Your task to perform on an android device: Open calendar and show me the fourth week of next month Image 0: 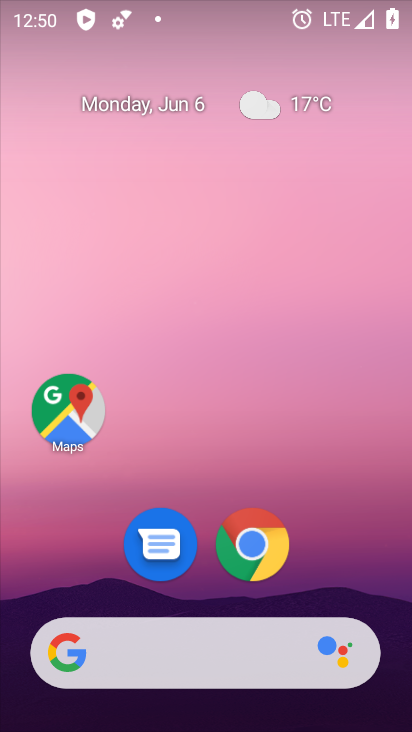
Step 0: drag from (349, 582) to (310, 231)
Your task to perform on an android device: Open calendar and show me the fourth week of next month Image 1: 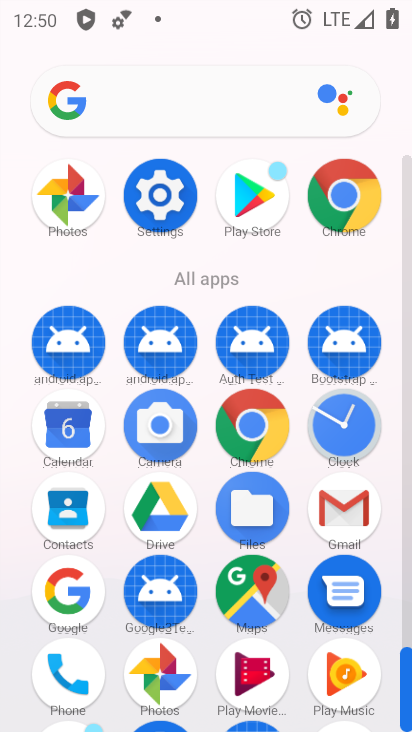
Step 1: click (66, 432)
Your task to perform on an android device: Open calendar and show me the fourth week of next month Image 2: 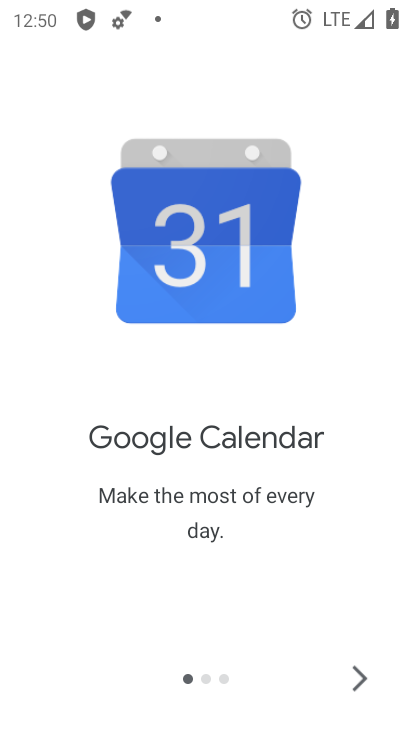
Step 2: click (363, 687)
Your task to perform on an android device: Open calendar and show me the fourth week of next month Image 3: 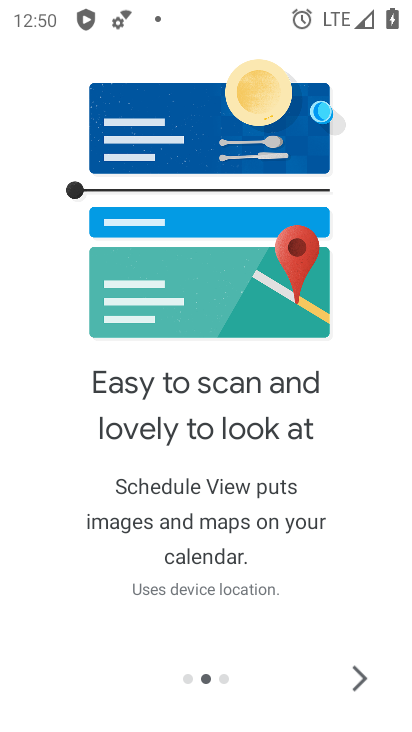
Step 3: click (363, 687)
Your task to perform on an android device: Open calendar and show me the fourth week of next month Image 4: 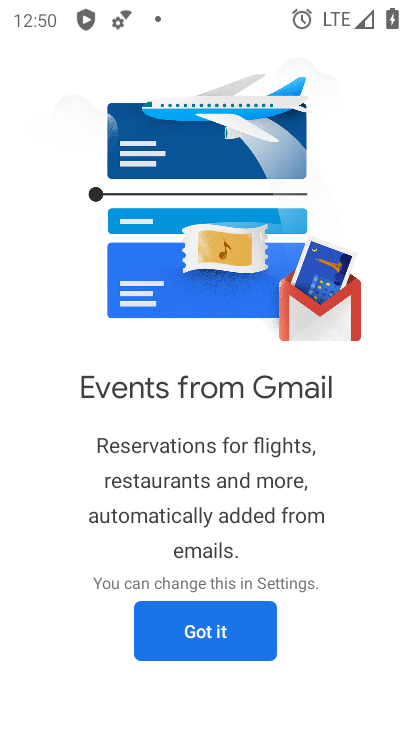
Step 4: click (245, 649)
Your task to perform on an android device: Open calendar and show me the fourth week of next month Image 5: 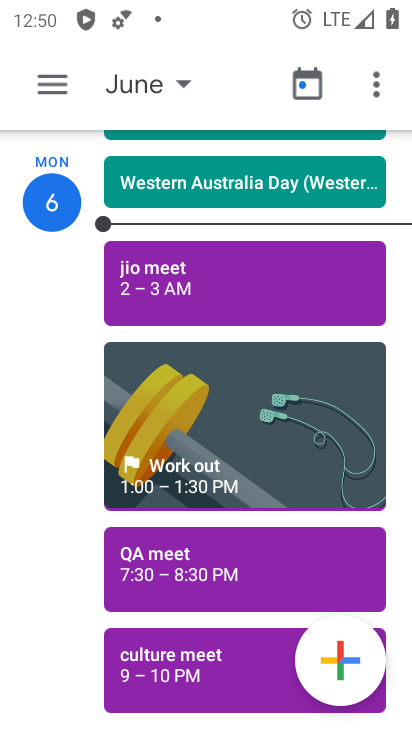
Step 5: click (55, 81)
Your task to perform on an android device: Open calendar and show me the fourth week of next month Image 6: 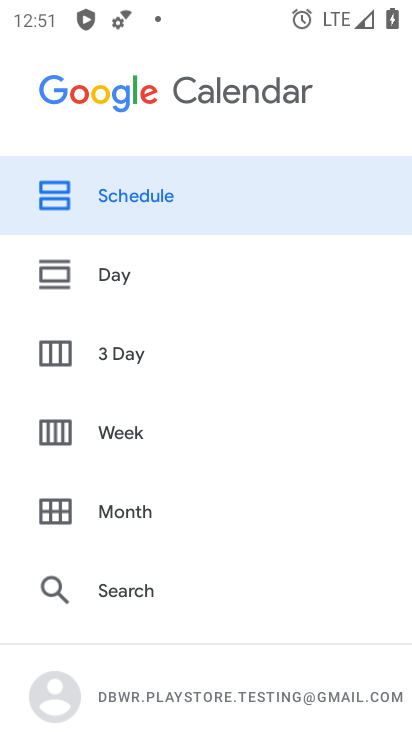
Step 6: drag from (219, 646) to (194, 325)
Your task to perform on an android device: Open calendar and show me the fourth week of next month Image 7: 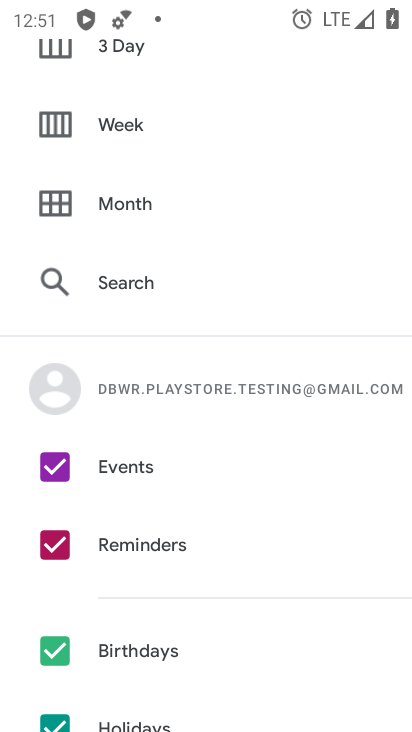
Step 7: click (135, 132)
Your task to perform on an android device: Open calendar and show me the fourth week of next month Image 8: 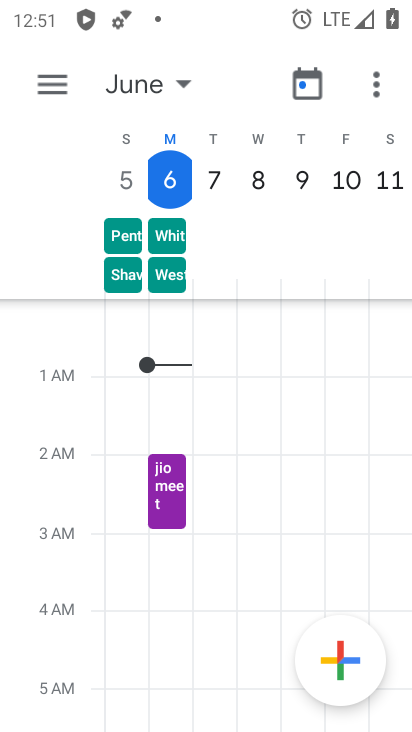
Step 8: click (182, 86)
Your task to perform on an android device: Open calendar and show me the fourth week of next month Image 9: 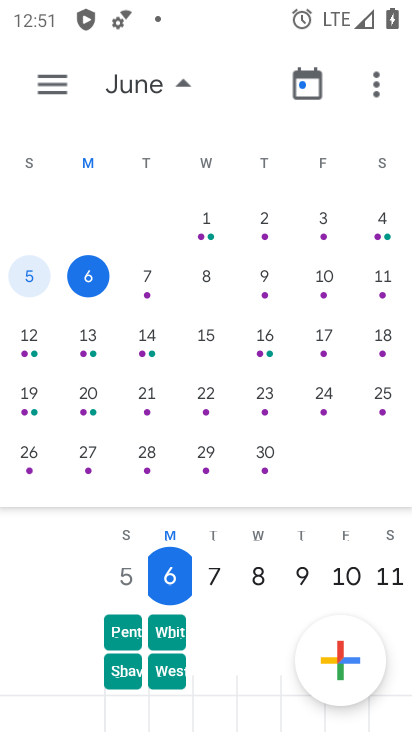
Step 9: drag from (396, 339) to (8, 341)
Your task to perform on an android device: Open calendar and show me the fourth week of next month Image 10: 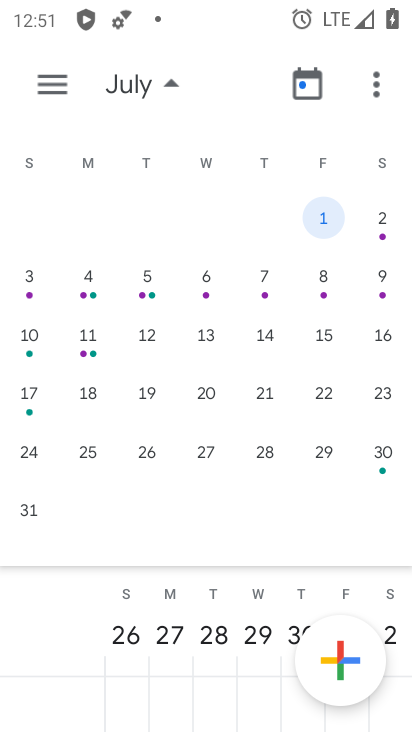
Step 10: click (197, 451)
Your task to perform on an android device: Open calendar and show me the fourth week of next month Image 11: 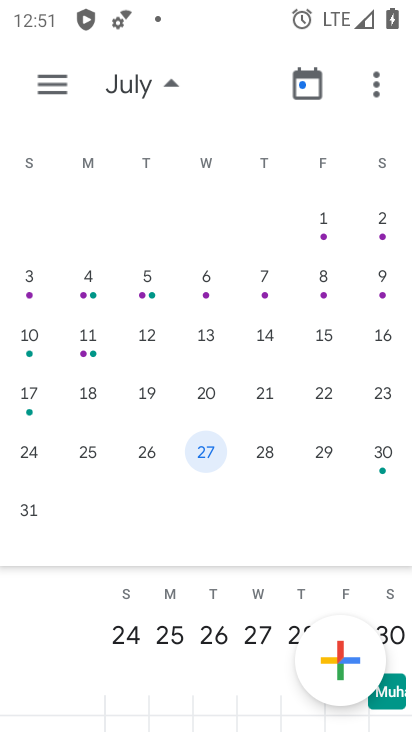
Step 11: task complete